Your task to perform on an android device: show emergency info Image 0: 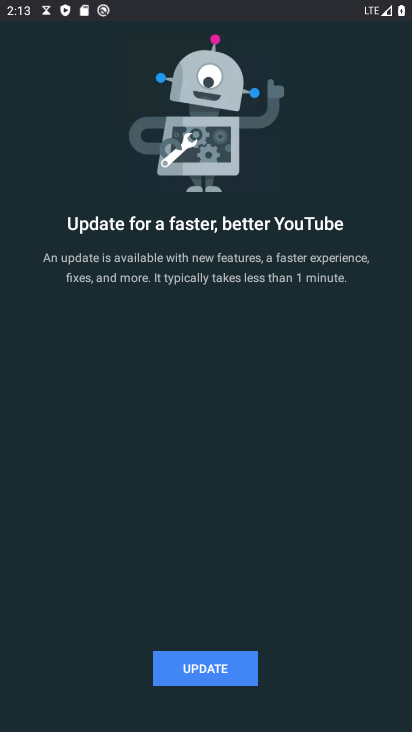
Step 0: press home button
Your task to perform on an android device: show emergency info Image 1: 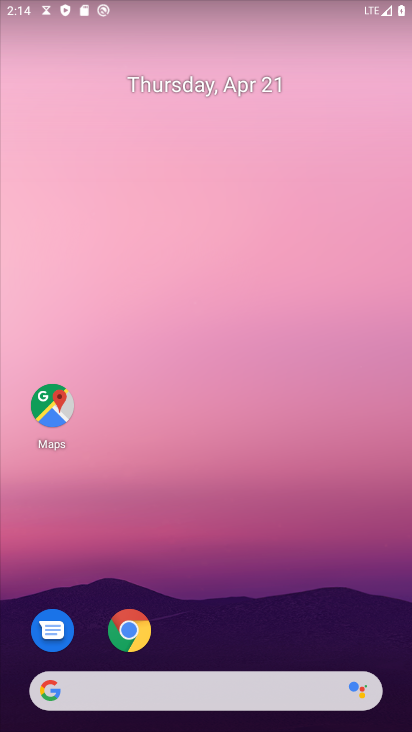
Step 1: drag from (362, 621) to (340, 20)
Your task to perform on an android device: show emergency info Image 2: 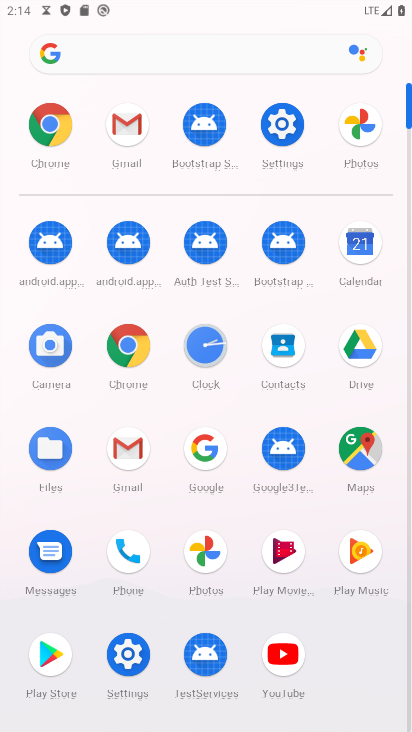
Step 2: click (284, 139)
Your task to perform on an android device: show emergency info Image 3: 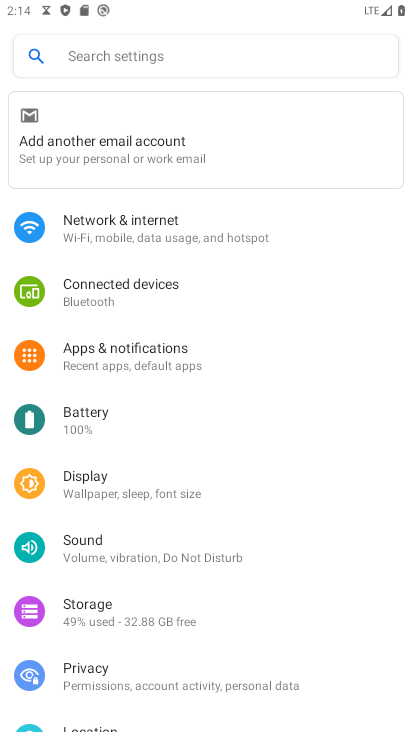
Step 3: drag from (250, 578) to (219, 18)
Your task to perform on an android device: show emergency info Image 4: 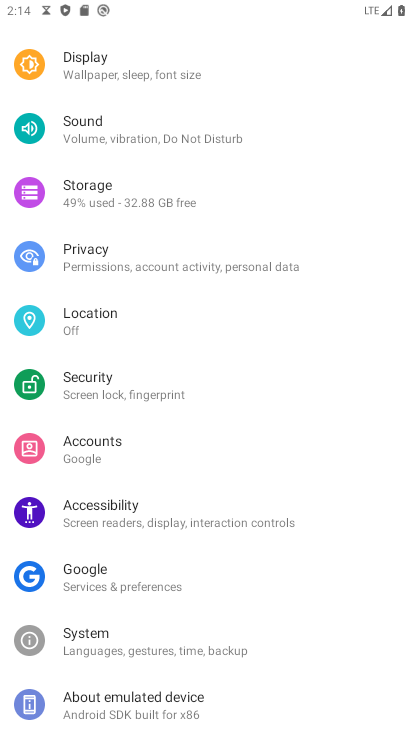
Step 4: drag from (262, 524) to (244, 145)
Your task to perform on an android device: show emergency info Image 5: 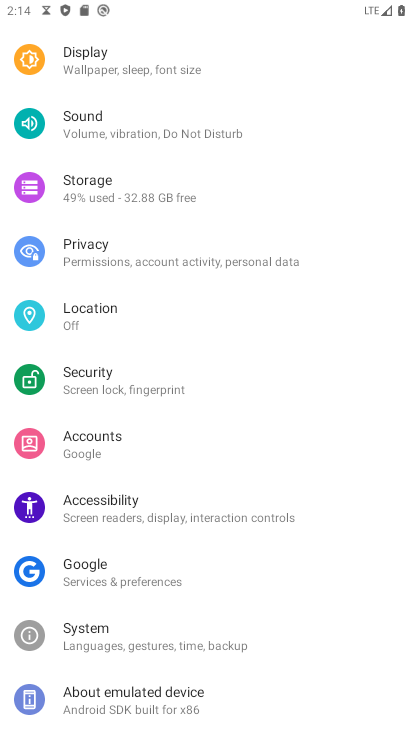
Step 5: click (148, 695)
Your task to perform on an android device: show emergency info Image 6: 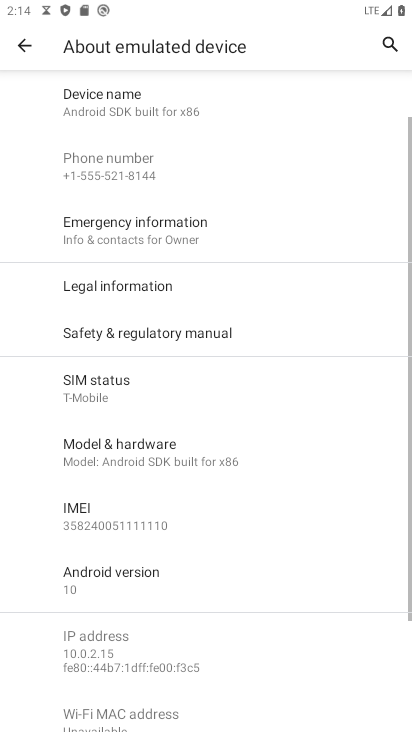
Step 6: click (85, 227)
Your task to perform on an android device: show emergency info Image 7: 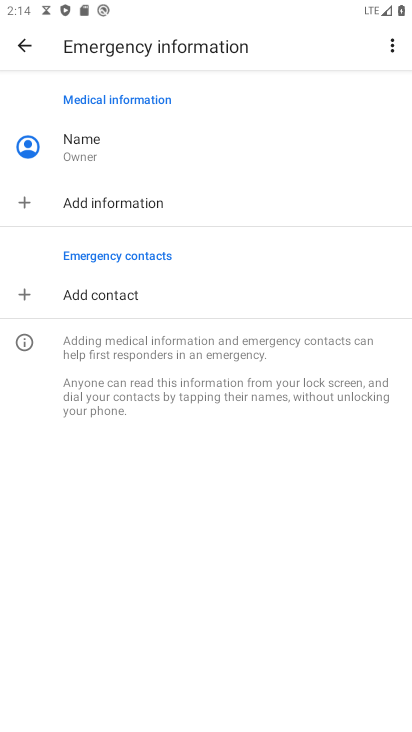
Step 7: task complete